Your task to perform on an android device: Open location settings Image 0: 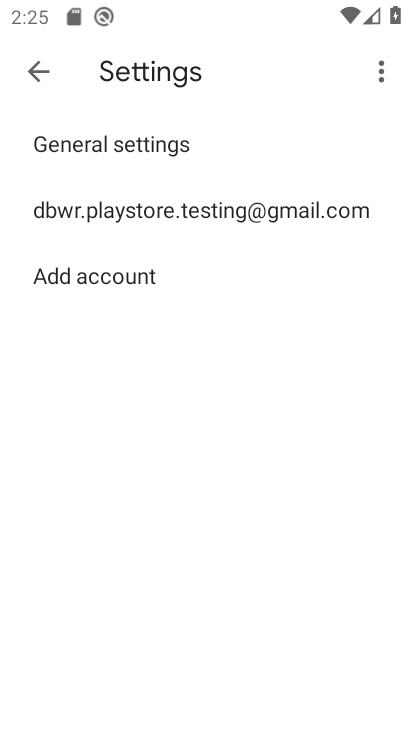
Step 0: press back button
Your task to perform on an android device: Open location settings Image 1: 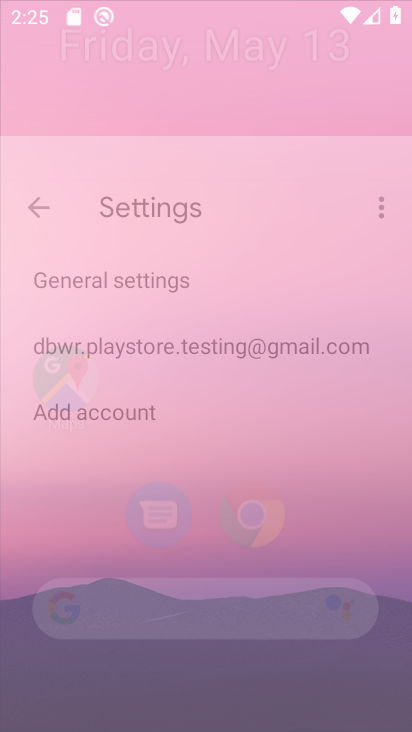
Step 1: press back button
Your task to perform on an android device: Open location settings Image 2: 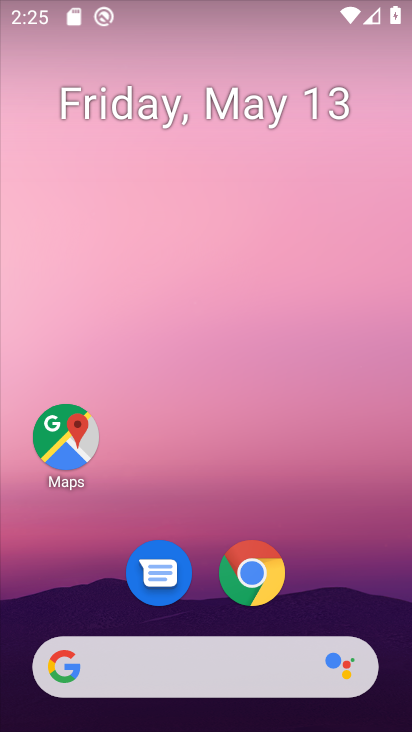
Step 2: drag from (338, 682) to (198, 108)
Your task to perform on an android device: Open location settings Image 3: 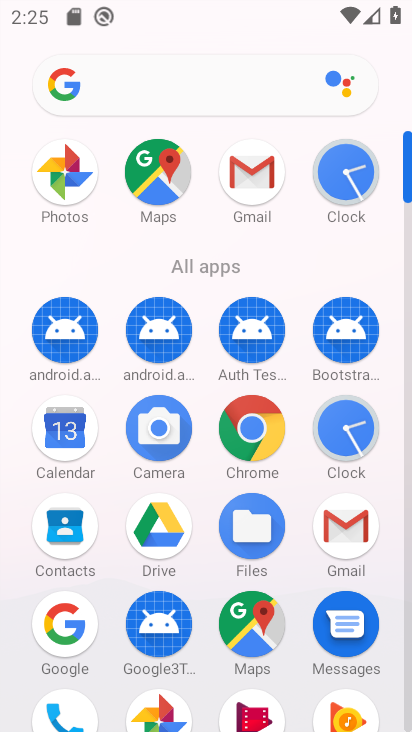
Step 3: drag from (286, 608) to (284, 70)
Your task to perform on an android device: Open location settings Image 4: 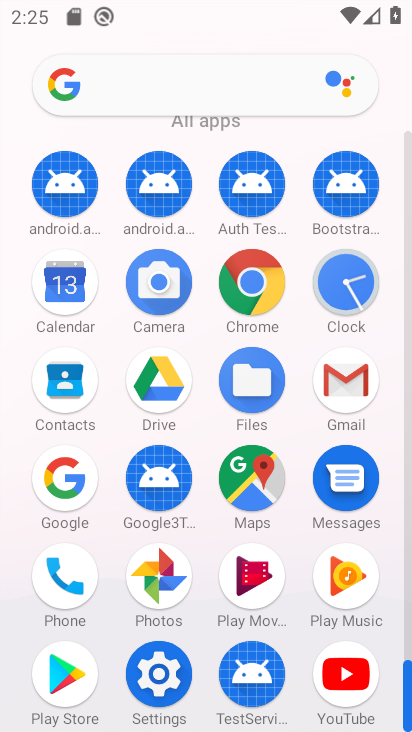
Step 4: drag from (203, 277) to (258, 691)
Your task to perform on an android device: Open location settings Image 5: 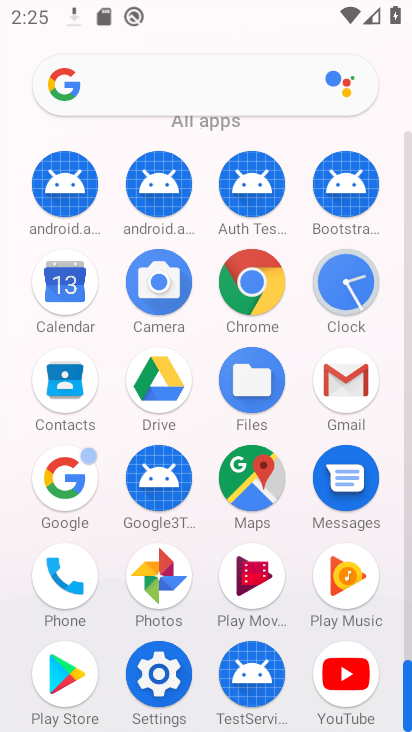
Step 5: click (151, 674)
Your task to perform on an android device: Open location settings Image 6: 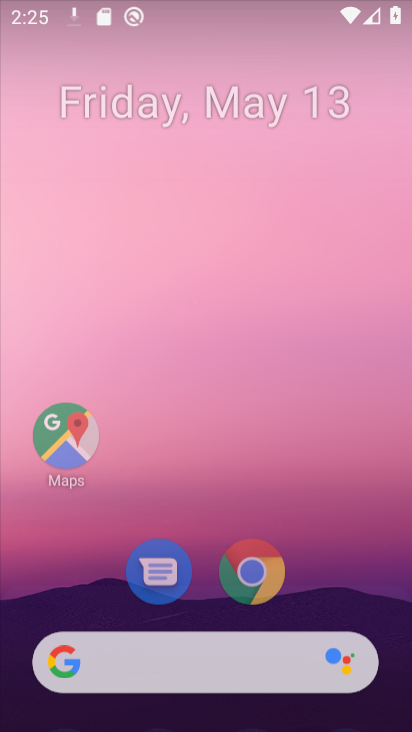
Step 6: click (151, 674)
Your task to perform on an android device: Open location settings Image 7: 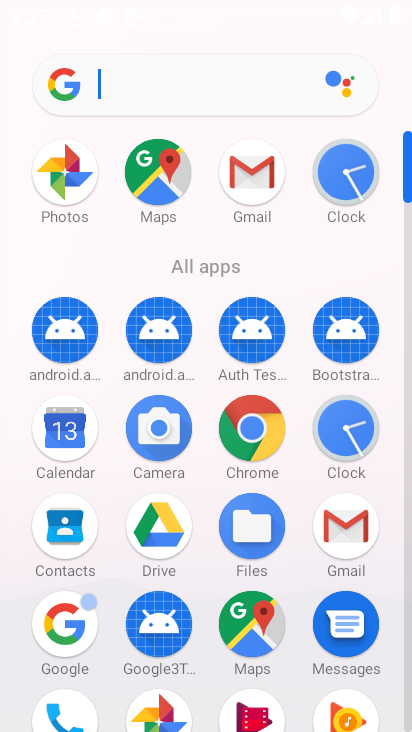
Step 7: click (151, 674)
Your task to perform on an android device: Open location settings Image 8: 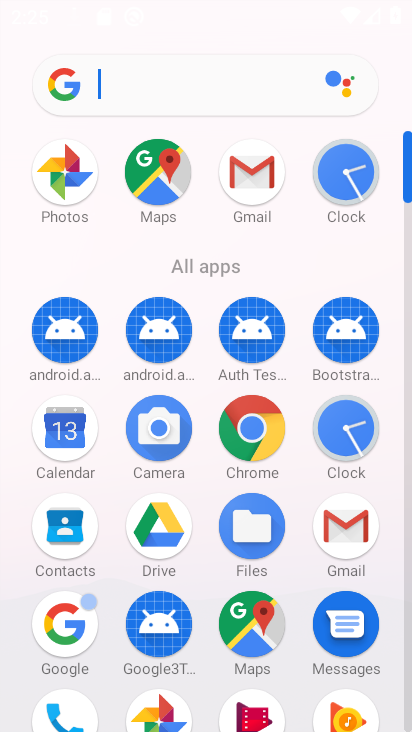
Step 8: drag from (197, 498) to (156, 108)
Your task to perform on an android device: Open location settings Image 9: 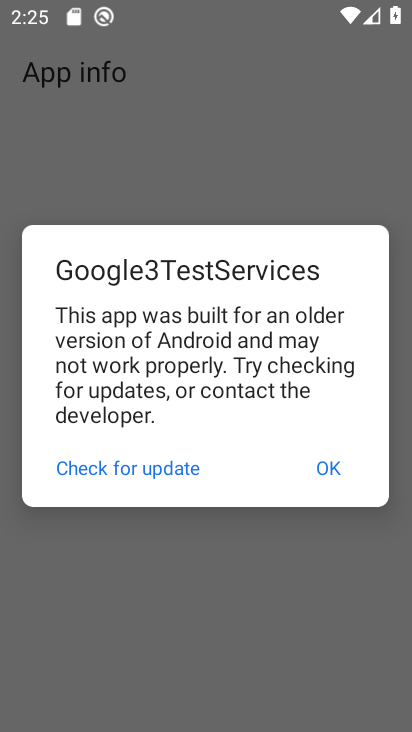
Step 9: press back button
Your task to perform on an android device: Open location settings Image 10: 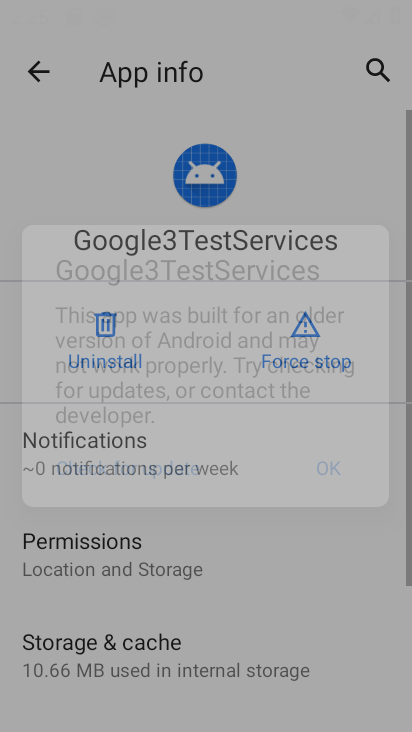
Step 10: press back button
Your task to perform on an android device: Open location settings Image 11: 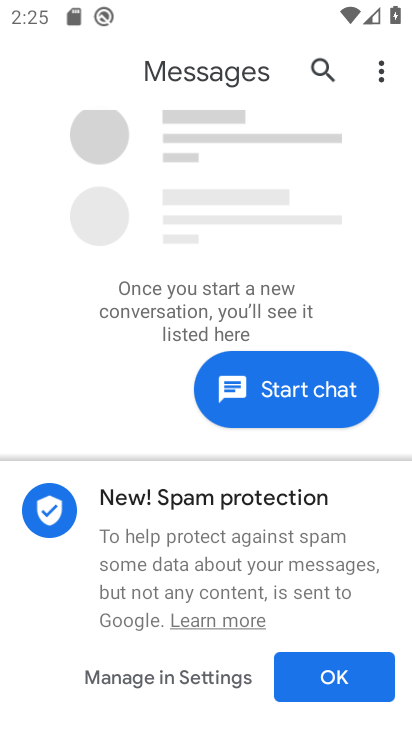
Step 11: press home button
Your task to perform on an android device: Open location settings Image 12: 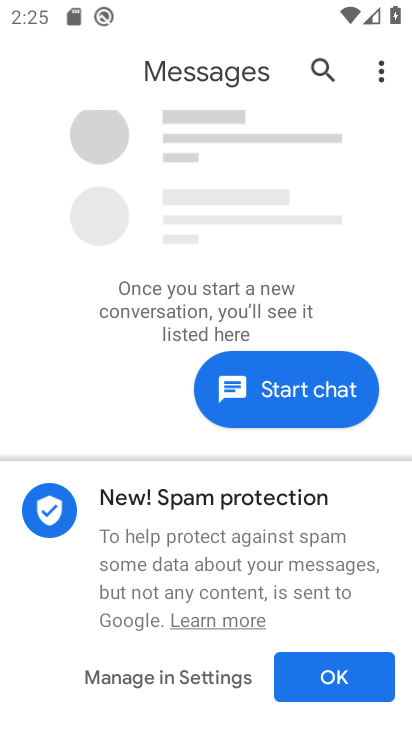
Step 12: press home button
Your task to perform on an android device: Open location settings Image 13: 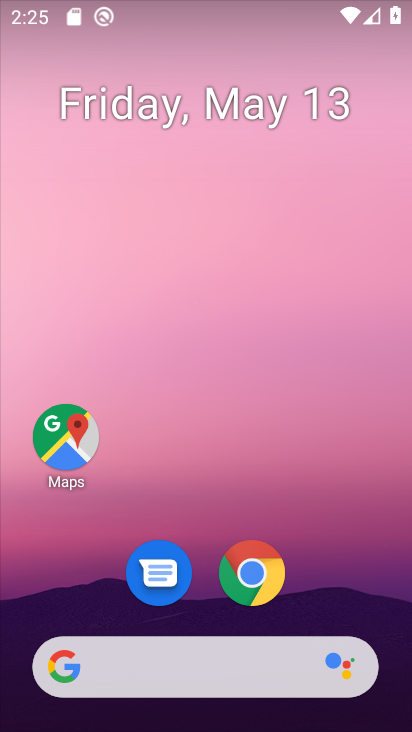
Step 13: drag from (293, 618) to (207, 167)
Your task to perform on an android device: Open location settings Image 14: 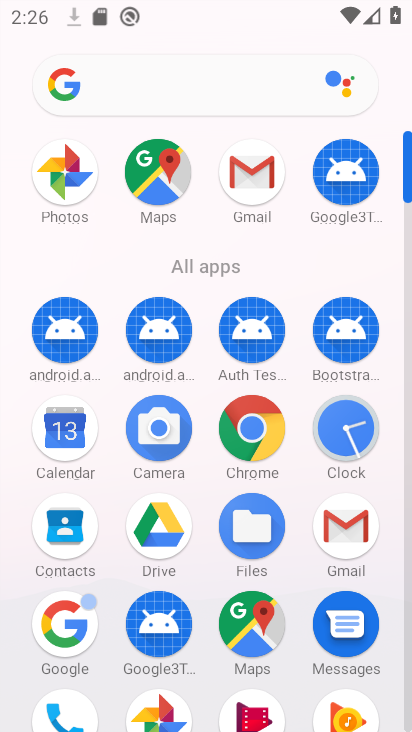
Step 14: drag from (184, 565) to (126, 148)
Your task to perform on an android device: Open location settings Image 15: 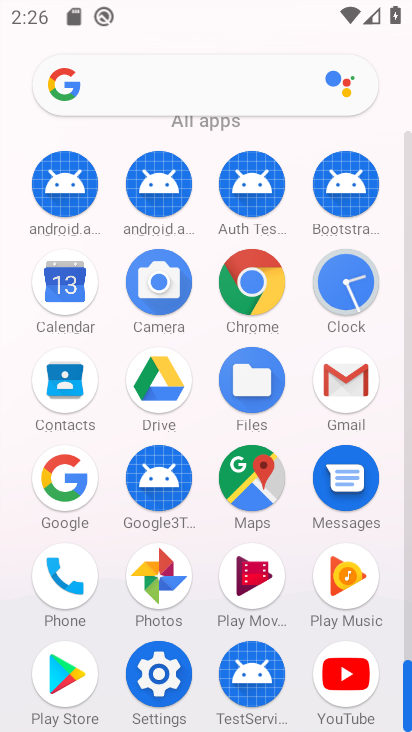
Step 15: drag from (198, 613) to (157, 114)
Your task to perform on an android device: Open location settings Image 16: 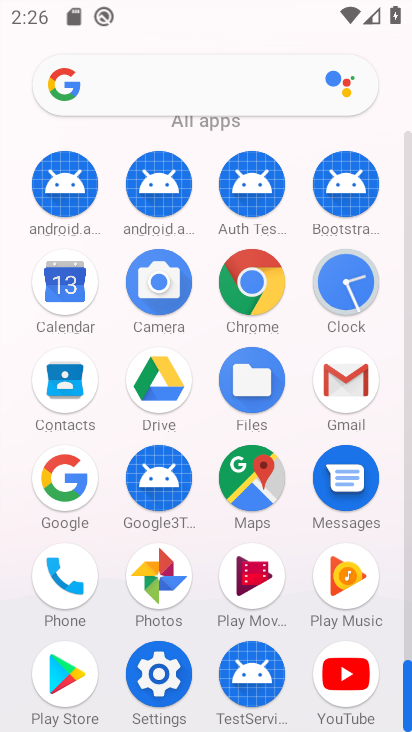
Step 16: click (163, 669)
Your task to perform on an android device: Open location settings Image 17: 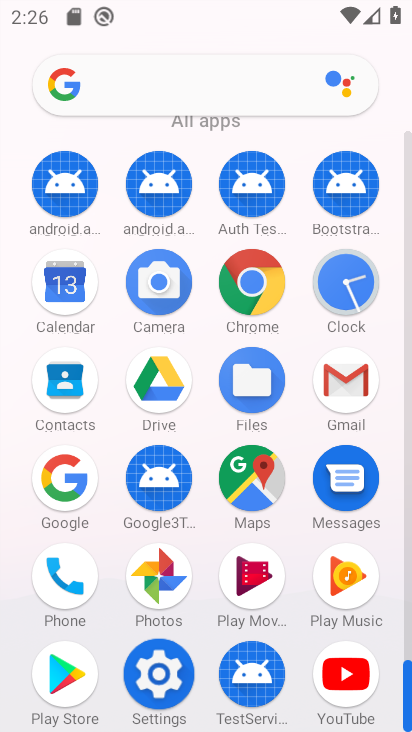
Step 17: click (160, 670)
Your task to perform on an android device: Open location settings Image 18: 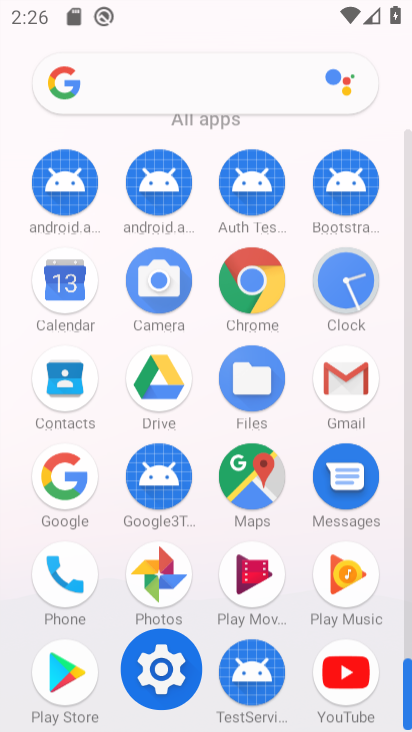
Step 18: click (160, 671)
Your task to perform on an android device: Open location settings Image 19: 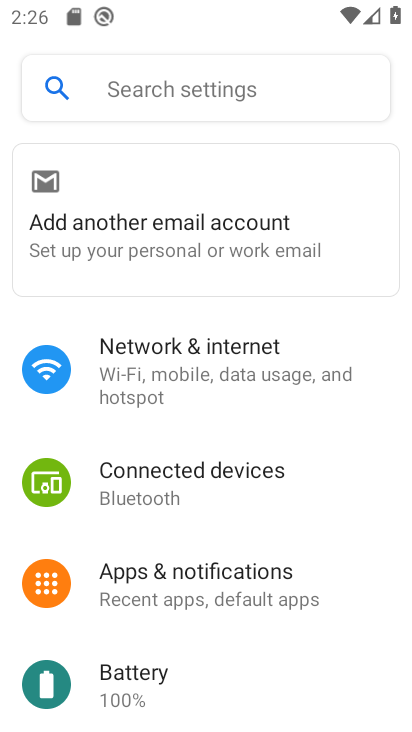
Step 19: drag from (171, 549) to (117, 7)
Your task to perform on an android device: Open location settings Image 20: 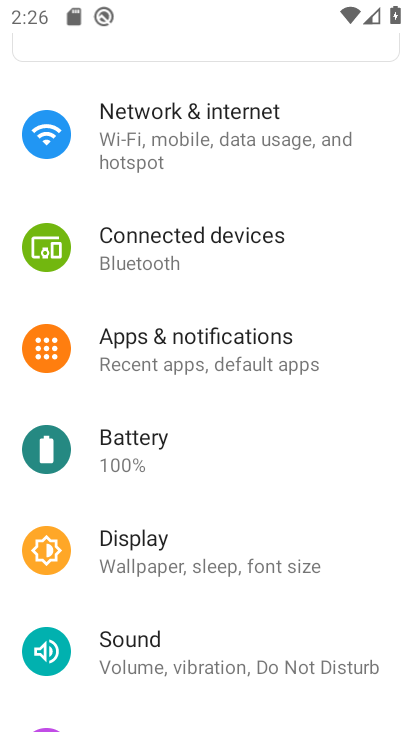
Step 20: drag from (235, 460) to (165, 0)
Your task to perform on an android device: Open location settings Image 21: 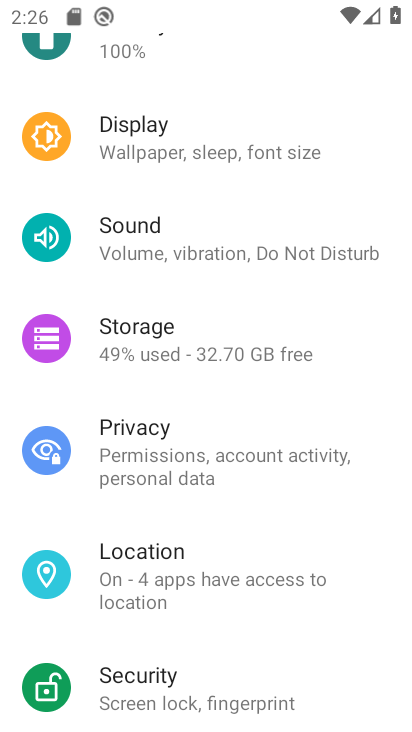
Step 21: click (160, 578)
Your task to perform on an android device: Open location settings Image 22: 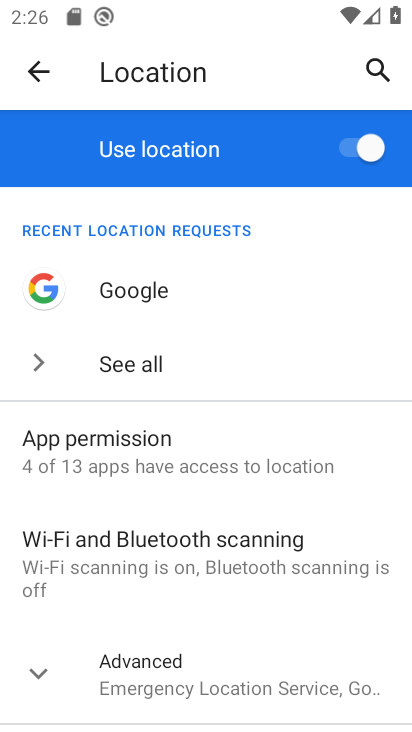
Step 22: task complete